Your task to perform on an android device: Go to CNN.com Image 0: 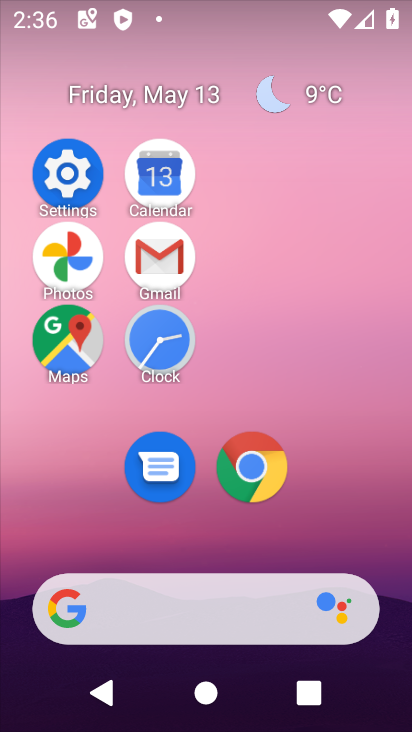
Step 0: click (263, 464)
Your task to perform on an android device: Go to CNN.com Image 1: 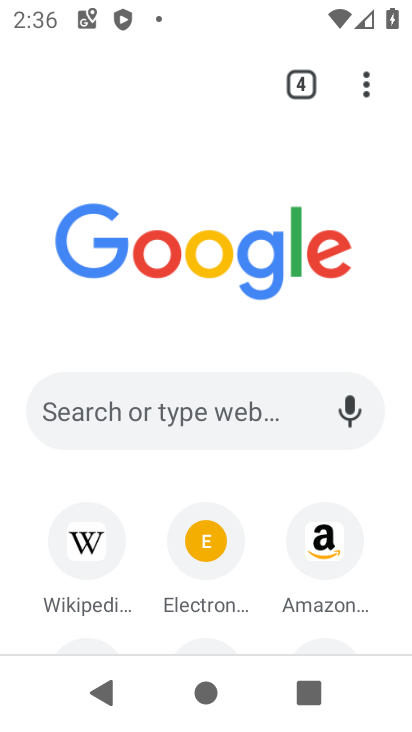
Step 1: drag from (195, 461) to (250, 80)
Your task to perform on an android device: Go to CNN.com Image 2: 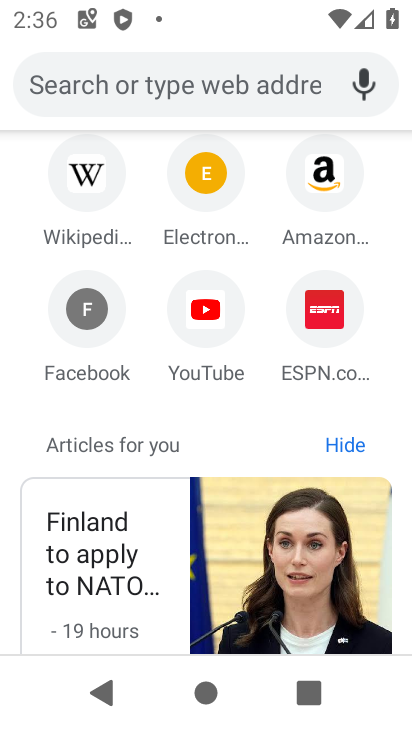
Step 2: drag from (263, 157) to (230, 488)
Your task to perform on an android device: Go to CNN.com Image 3: 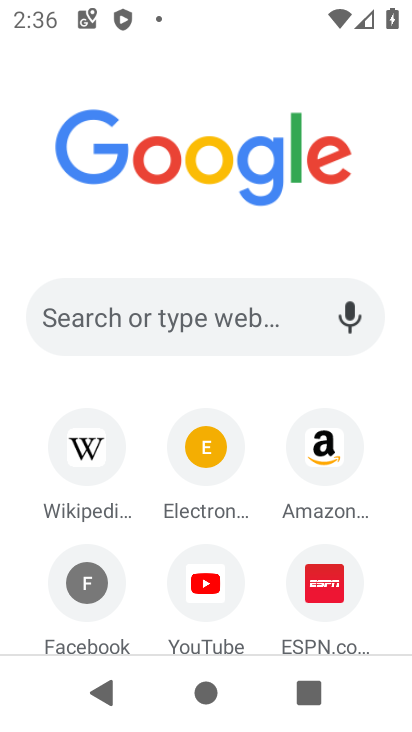
Step 3: drag from (316, 116) to (293, 412)
Your task to perform on an android device: Go to CNN.com Image 4: 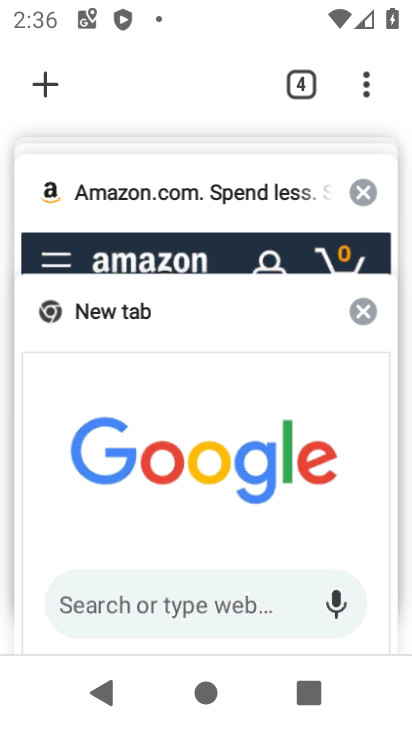
Step 4: drag from (262, 368) to (283, 89)
Your task to perform on an android device: Go to CNN.com Image 5: 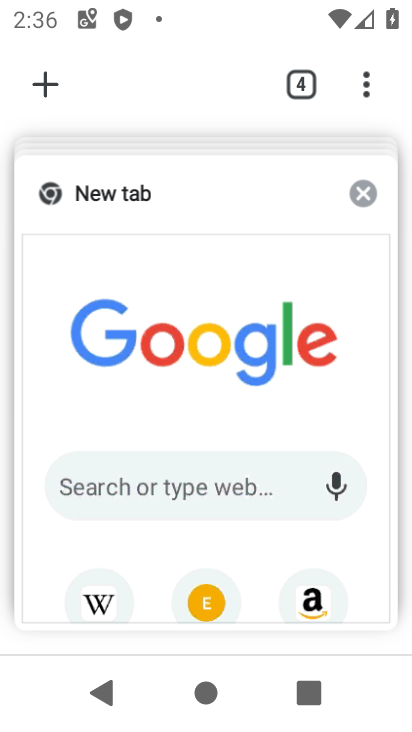
Step 5: click (305, 86)
Your task to perform on an android device: Go to CNN.com Image 6: 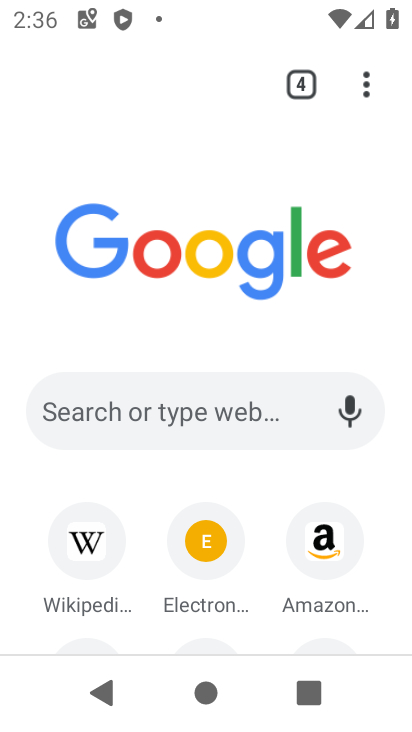
Step 6: click (292, 96)
Your task to perform on an android device: Go to CNN.com Image 7: 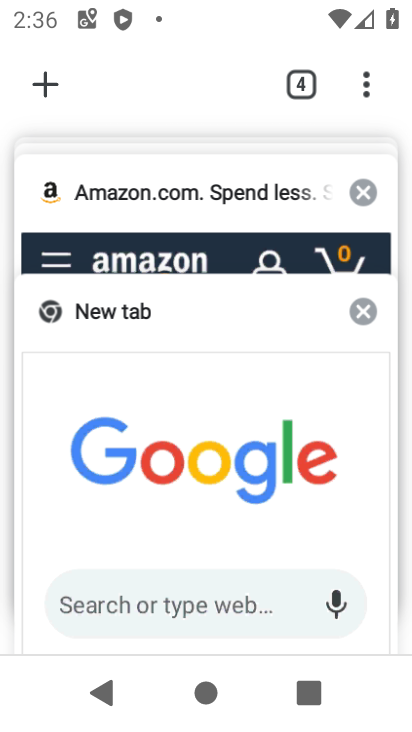
Step 7: click (304, 87)
Your task to perform on an android device: Go to CNN.com Image 8: 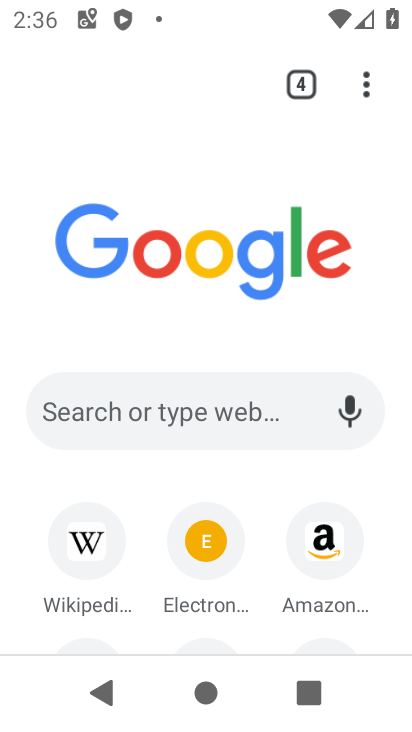
Step 8: click (218, 394)
Your task to perform on an android device: Go to CNN.com Image 9: 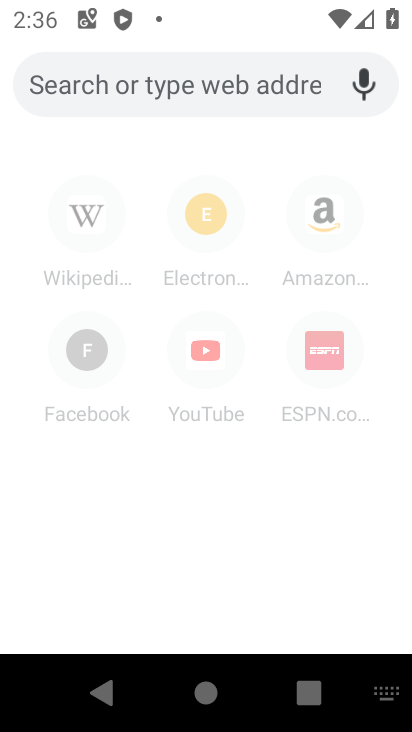
Step 9: type "cnn"
Your task to perform on an android device: Go to CNN.com Image 10: 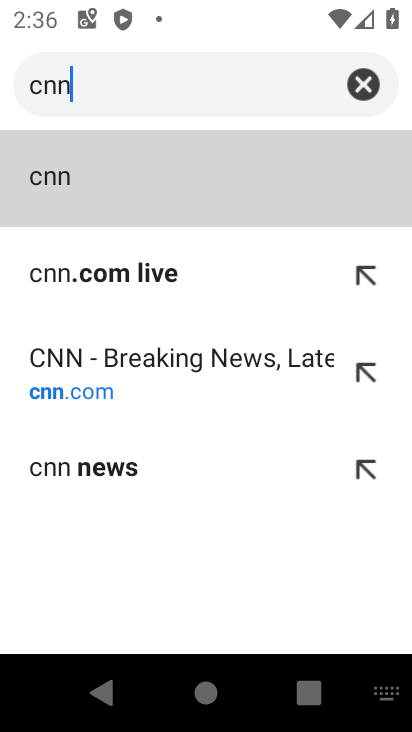
Step 10: click (117, 392)
Your task to perform on an android device: Go to CNN.com Image 11: 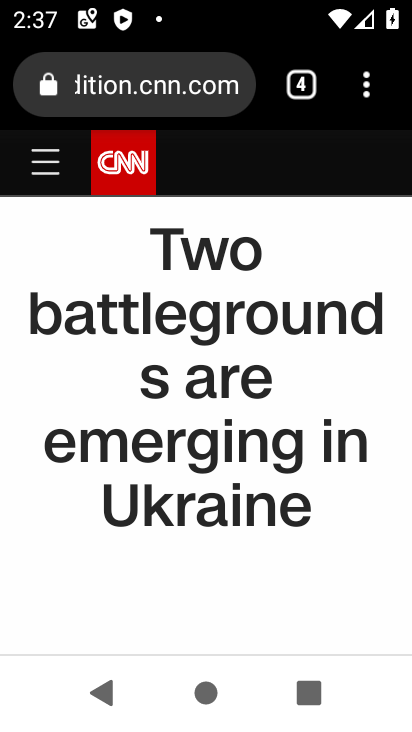
Step 11: task complete